Your task to perform on an android device: Open CNN.com Image 0: 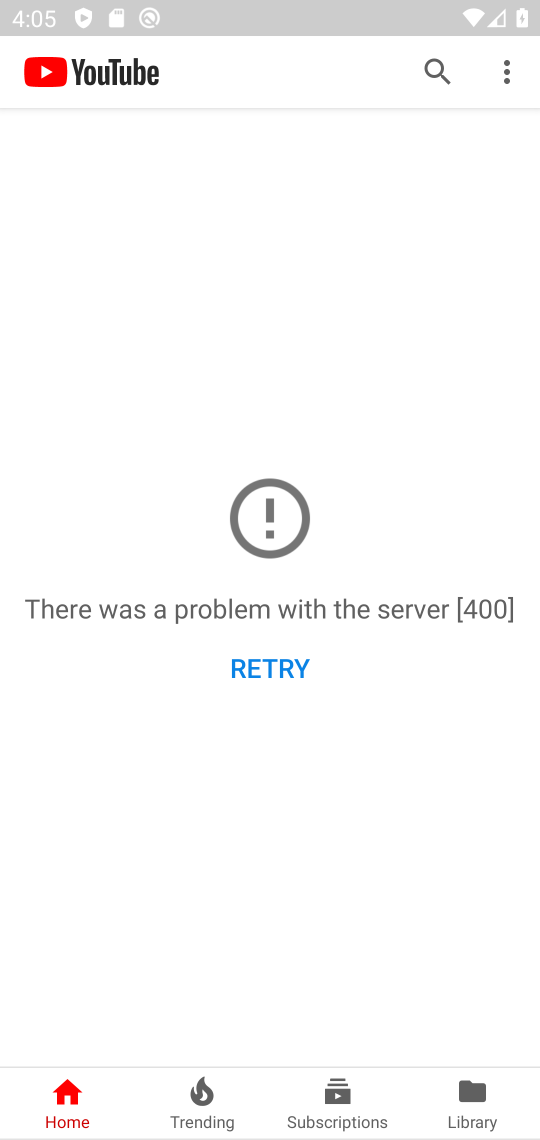
Step 0: press home button
Your task to perform on an android device: Open CNN.com Image 1: 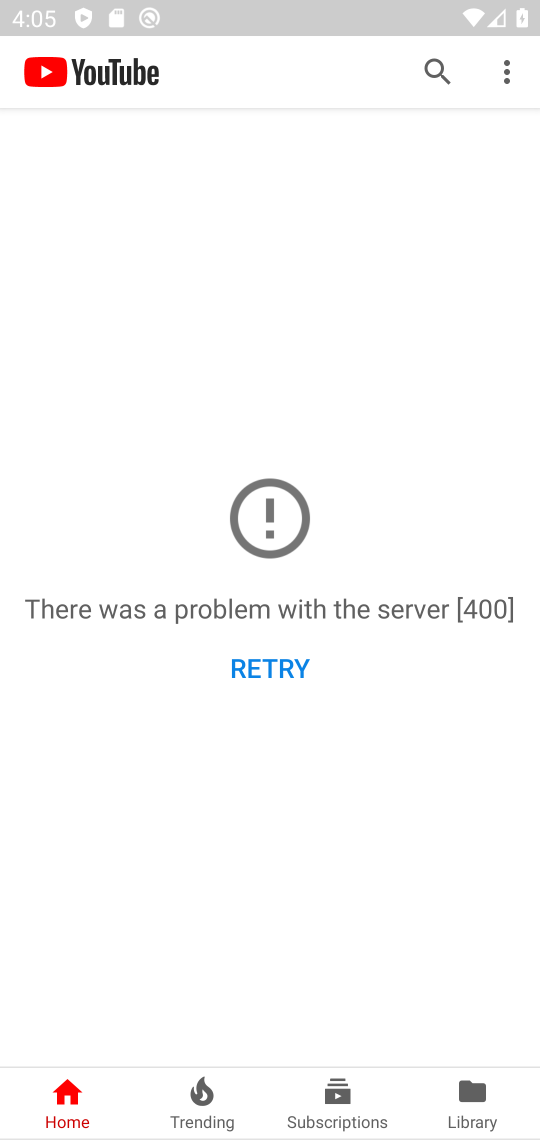
Step 1: press home button
Your task to perform on an android device: Open CNN.com Image 2: 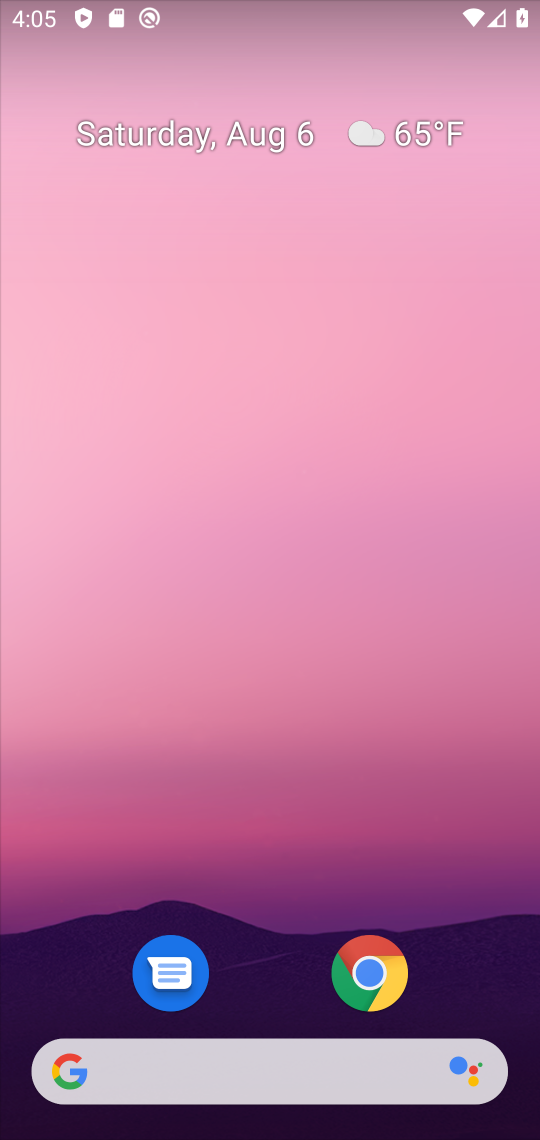
Step 2: drag from (296, 974) to (286, 27)
Your task to perform on an android device: Open CNN.com Image 3: 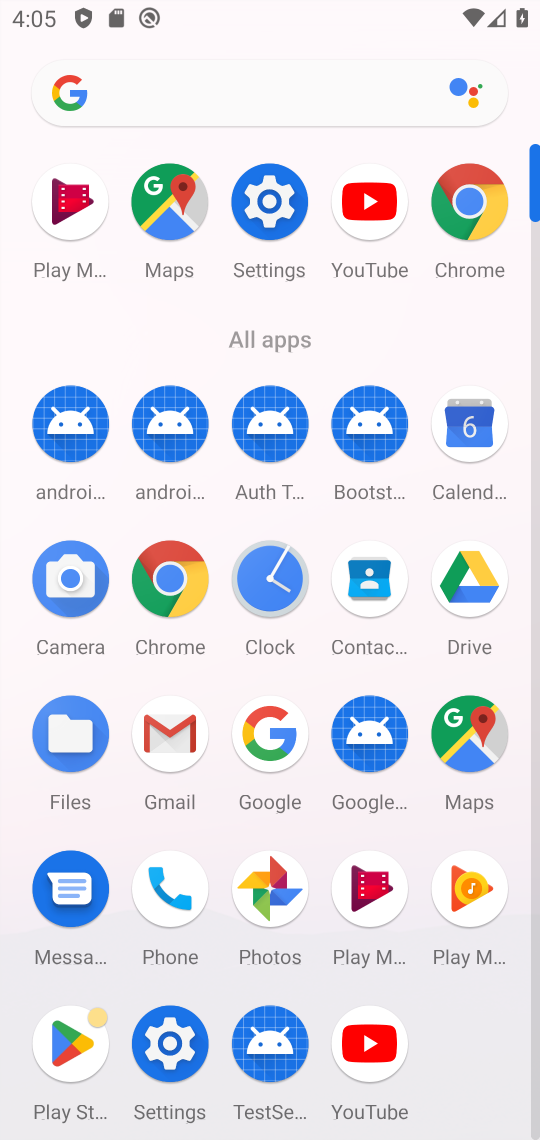
Step 3: click (168, 576)
Your task to perform on an android device: Open CNN.com Image 4: 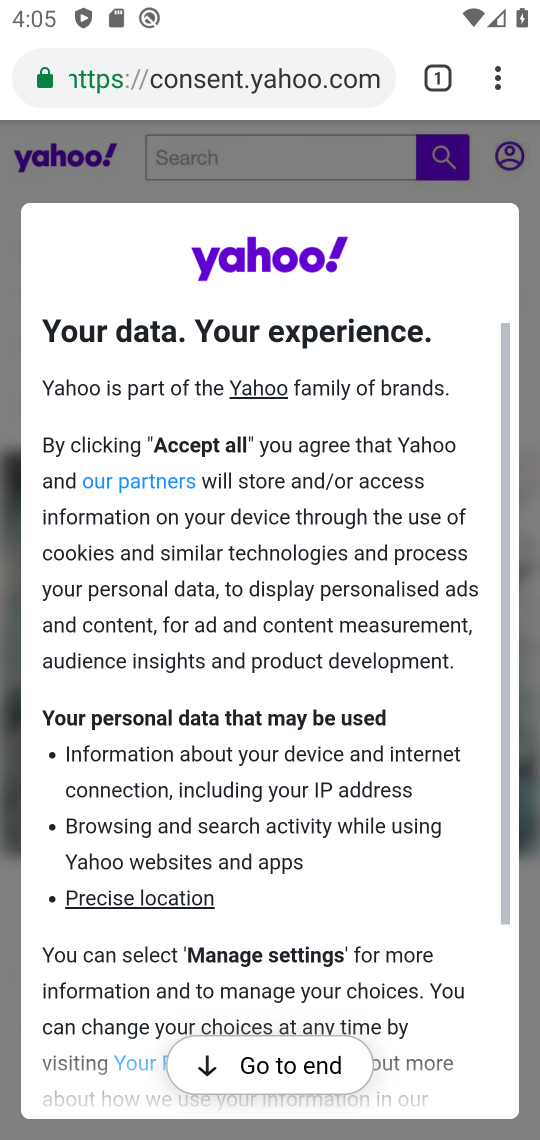
Step 4: click (295, 61)
Your task to perform on an android device: Open CNN.com Image 5: 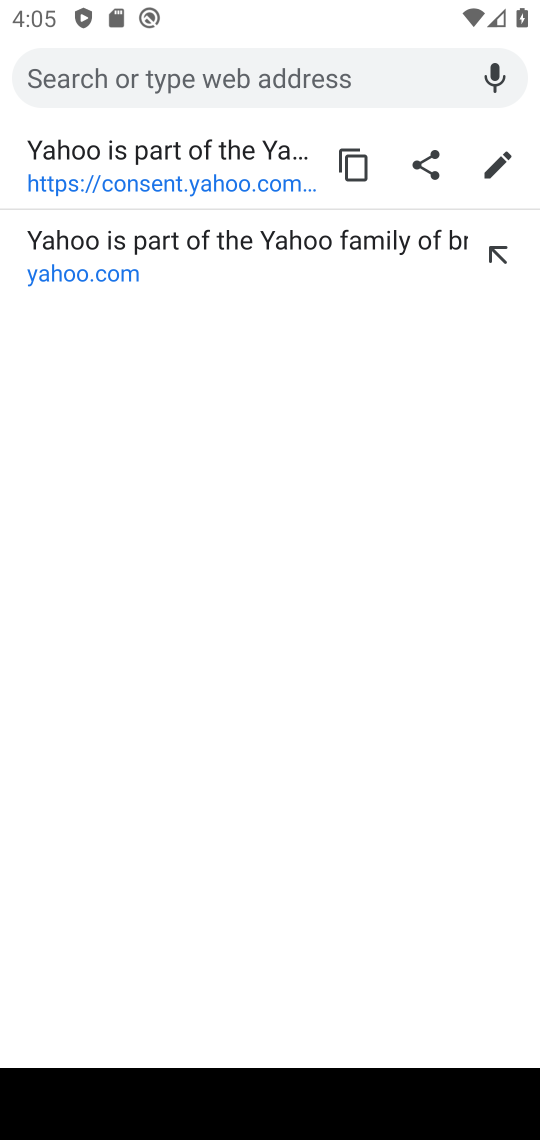
Step 5: type "cnn.com"
Your task to perform on an android device: Open CNN.com Image 6: 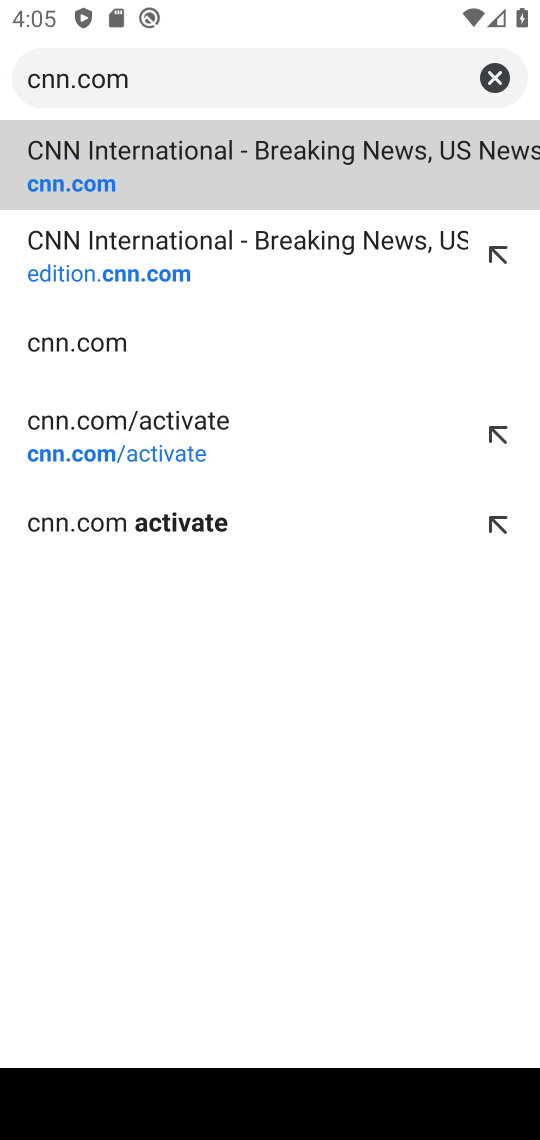
Step 6: click (57, 165)
Your task to perform on an android device: Open CNN.com Image 7: 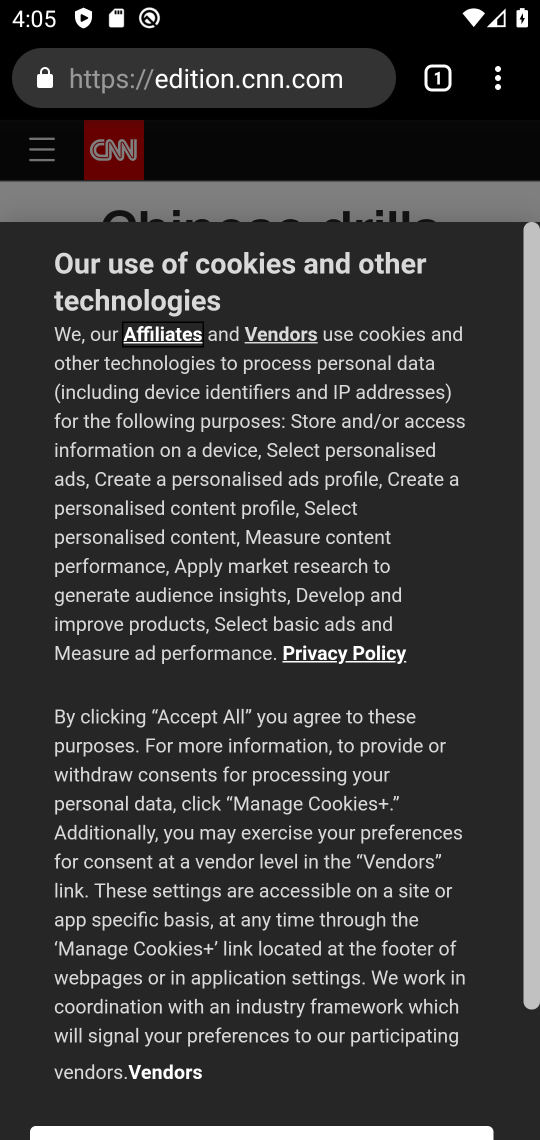
Step 7: task complete